Your task to perform on an android device: Open calendar and show me the second week of next month Image 0: 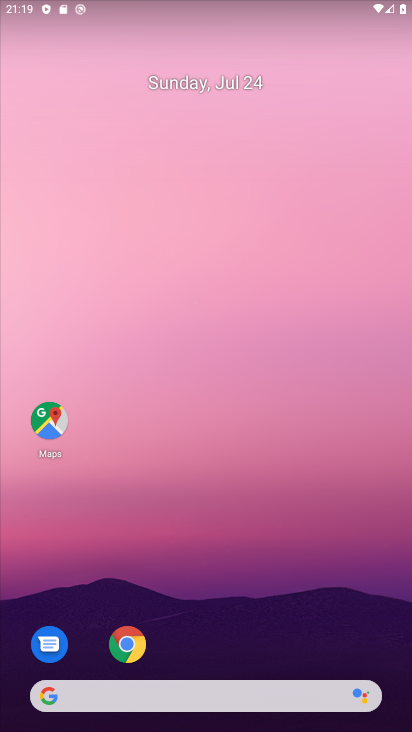
Step 0: drag from (394, 656) to (344, 196)
Your task to perform on an android device: Open calendar and show me the second week of next month Image 1: 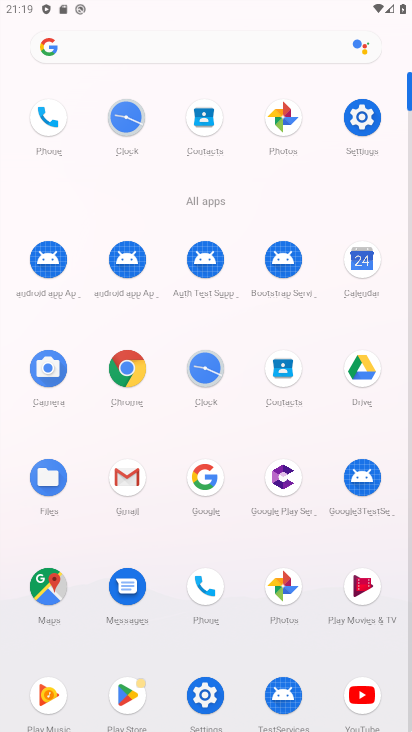
Step 1: click (361, 261)
Your task to perform on an android device: Open calendar and show me the second week of next month Image 2: 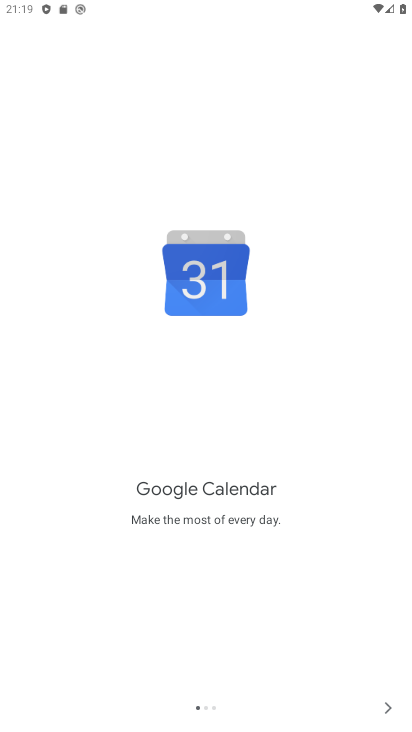
Step 2: click (385, 709)
Your task to perform on an android device: Open calendar and show me the second week of next month Image 3: 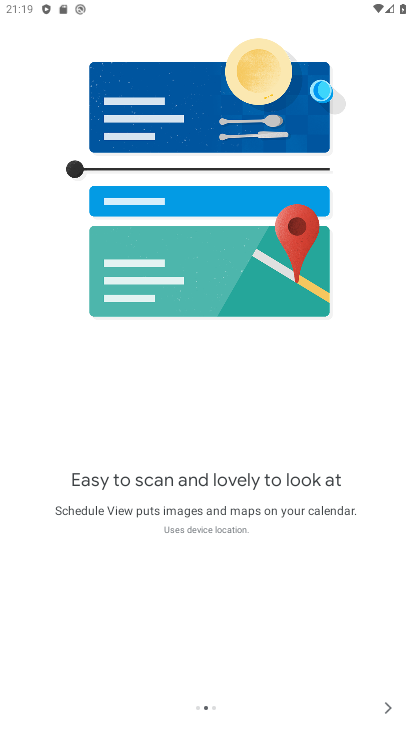
Step 3: click (385, 709)
Your task to perform on an android device: Open calendar and show me the second week of next month Image 4: 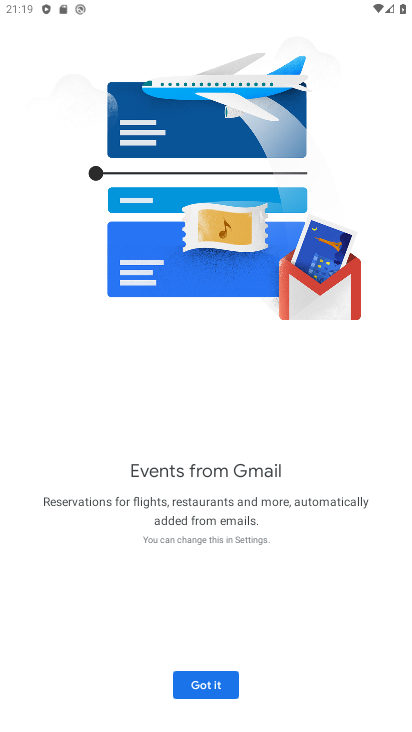
Step 4: click (204, 687)
Your task to perform on an android device: Open calendar and show me the second week of next month Image 5: 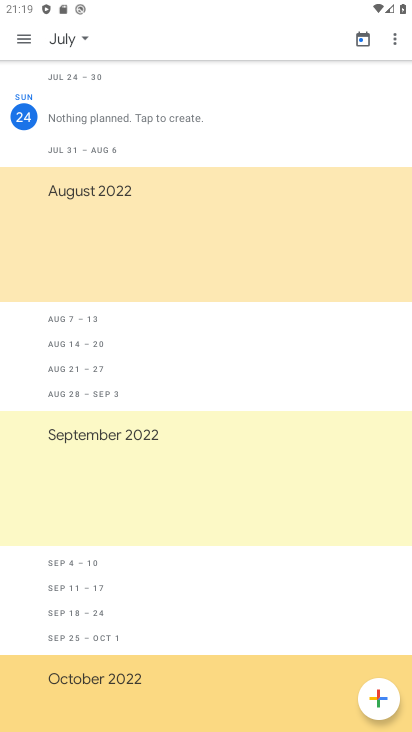
Step 5: click (24, 45)
Your task to perform on an android device: Open calendar and show me the second week of next month Image 6: 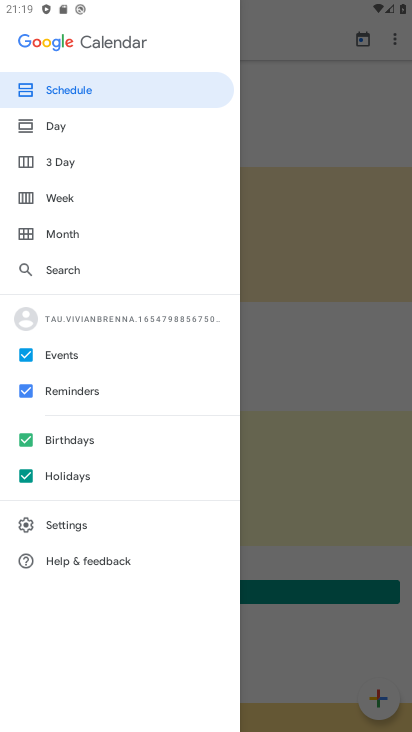
Step 6: click (64, 195)
Your task to perform on an android device: Open calendar and show me the second week of next month Image 7: 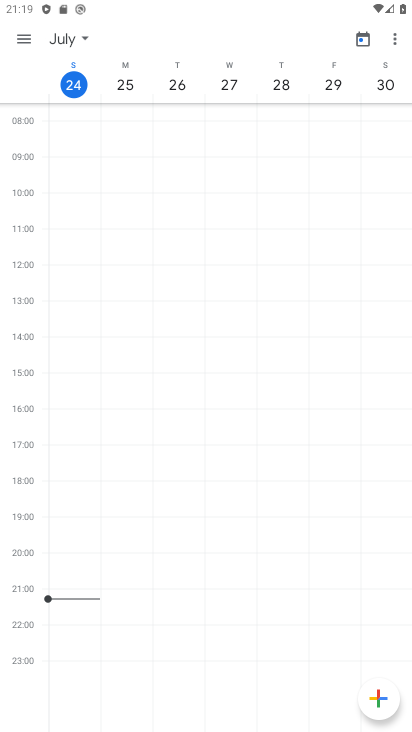
Step 7: click (83, 38)
Your task to perform on an android device: Open calendar and show me the second week of next month Image 8: 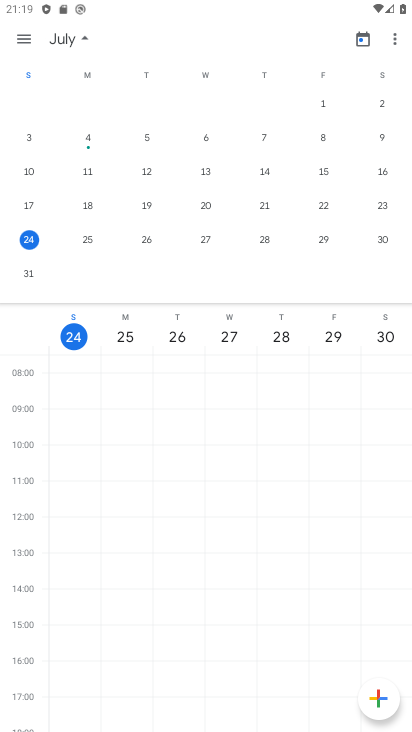
Step 8: drag from (386, 204) to (4, 185)
Your task to perform on an android device: Open calendar and show me the second week of next month Image 9: 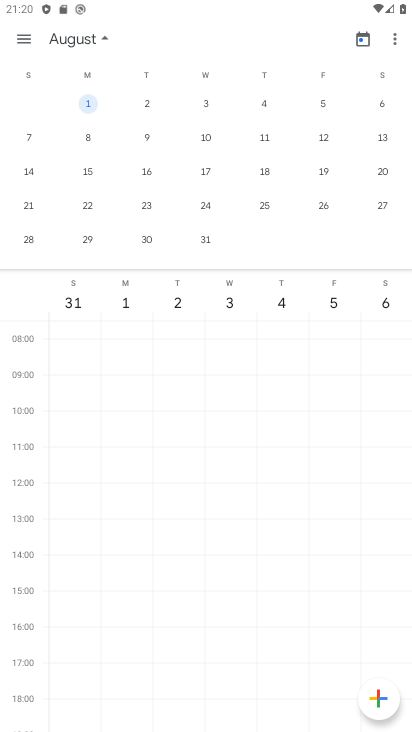
Step 9: click (33, 172)
Your task to perform on an android device: Open calendar and show me the second week of next month Image 10: 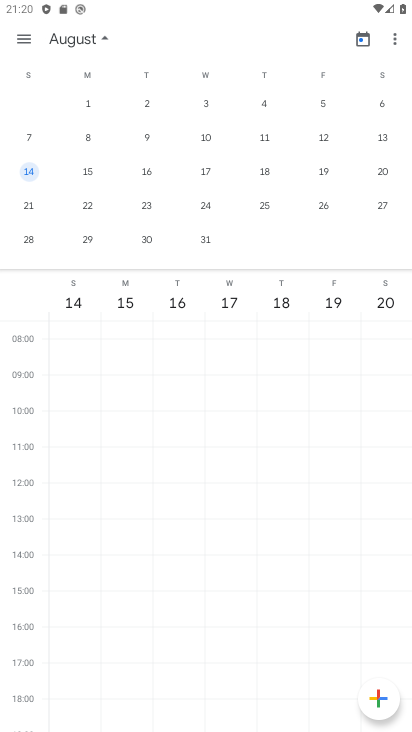
Step 10: task complete